Your task to perform on an android device: Show me productivity apps on the Play Store Image 0: 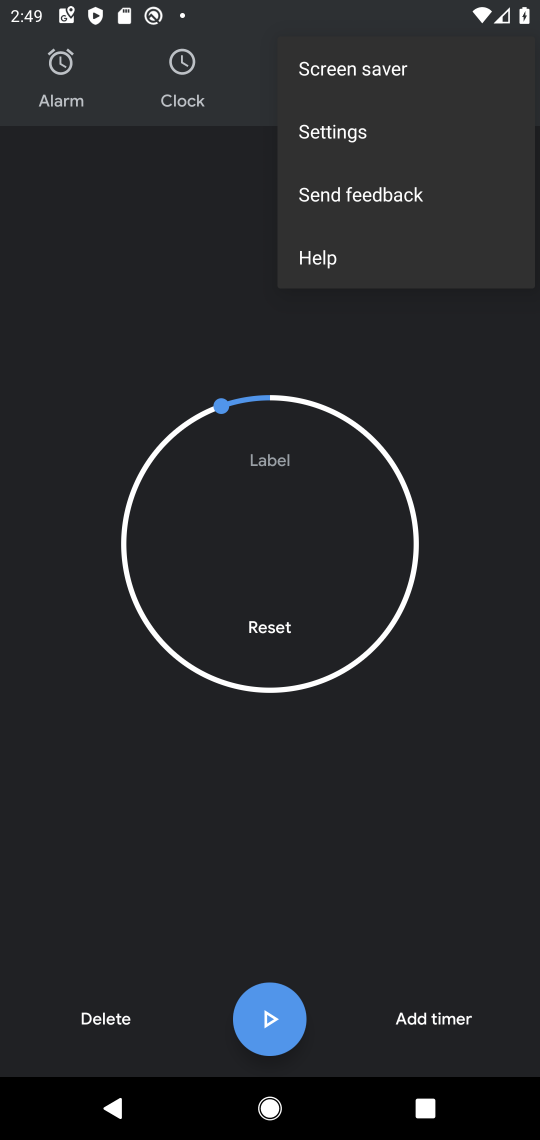
Step 0: press home button
Your task to perform on an android device: Show me productivity apps on the Play Store Image 1: 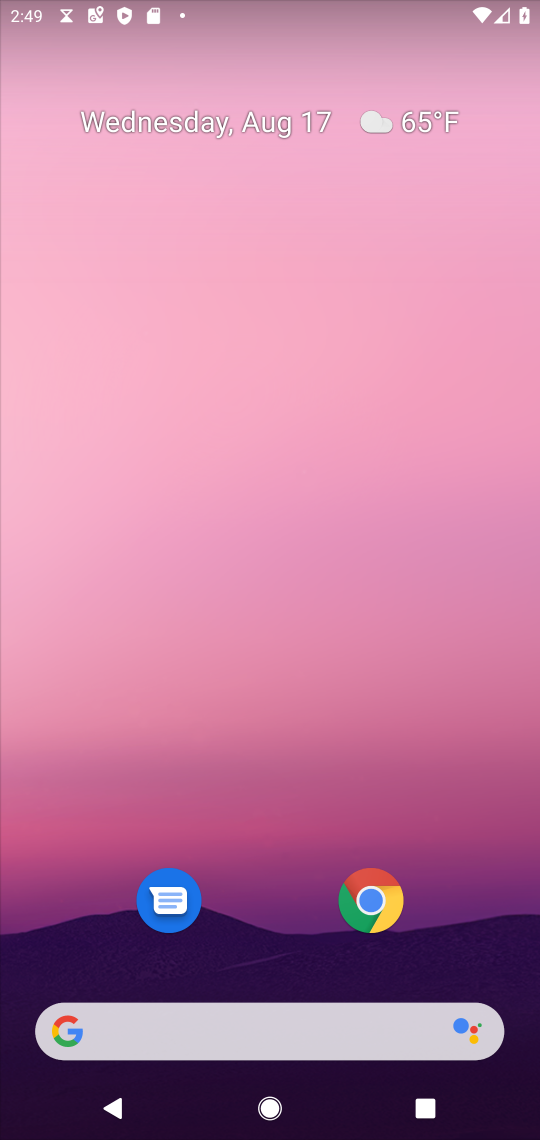
Step 1: drag from (231, 1026) to (356, 231)
Your task to perform on an android device: Show me productivity apps on the Play Store Image 2: 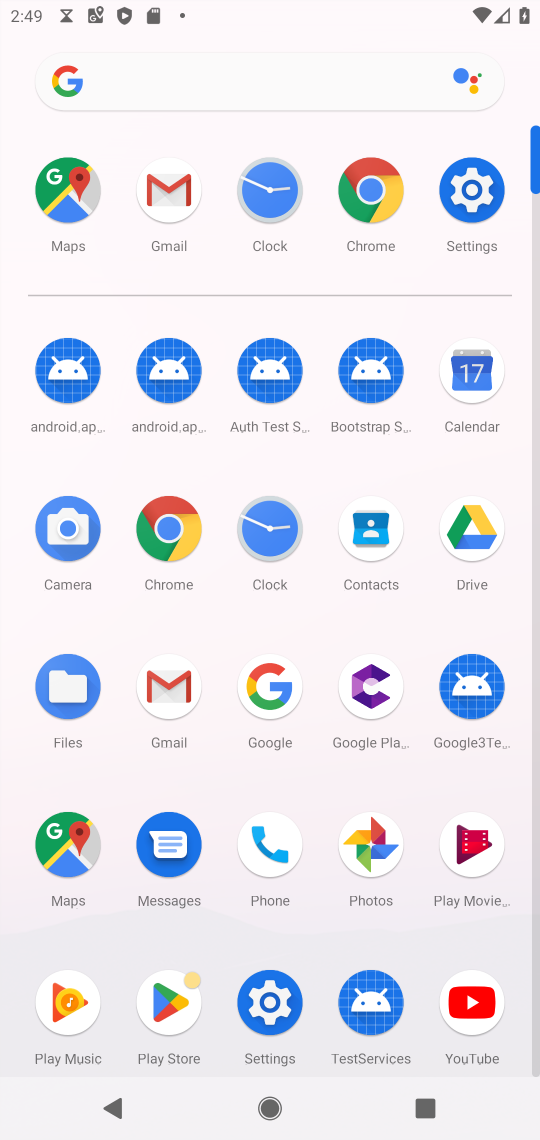
Step 2: click (171, 1064)
Your task to perform on an android device: Show me productivity apps on the Play Store Image 3: 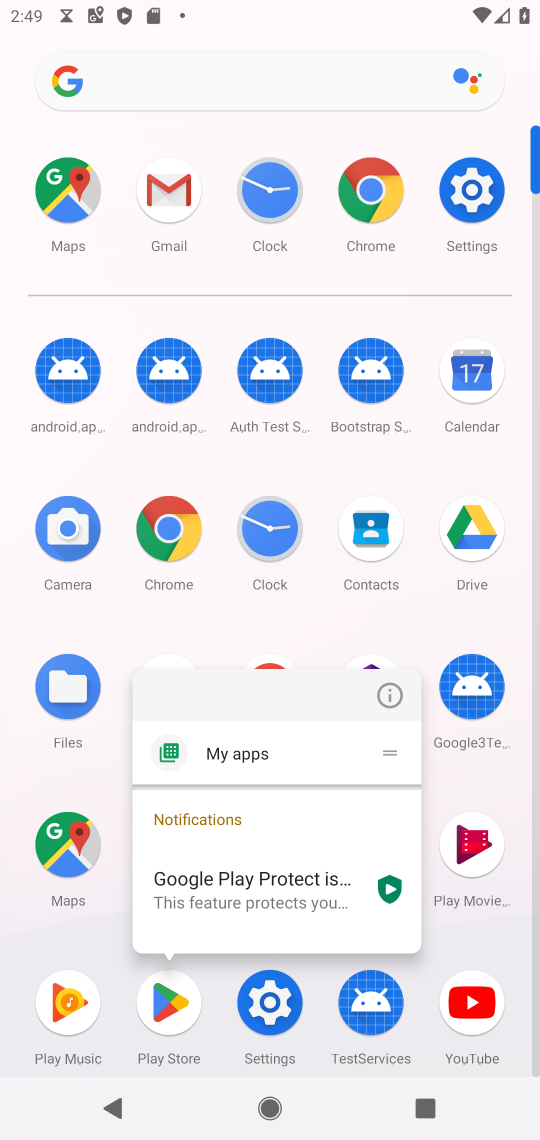
Step 3: click (161, 1005)
Your task to perform on an android device: Show me productivity apps on the Play Store Image 4: 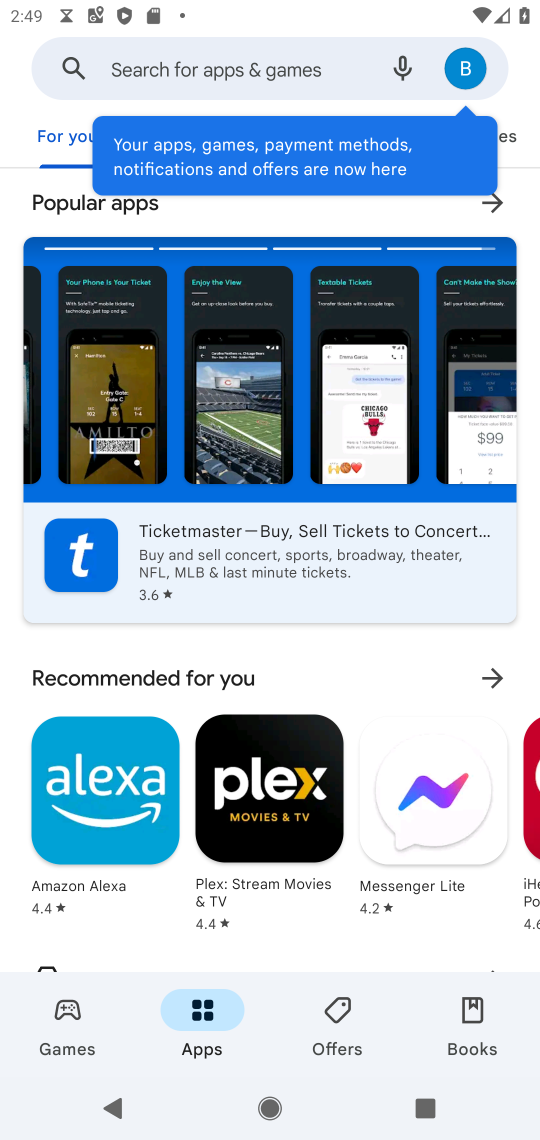
Step 4: drag from (355, 725) to (486, 294)
Your task to perform on an android device: Show me productivity apps on the Play Store Image 5: 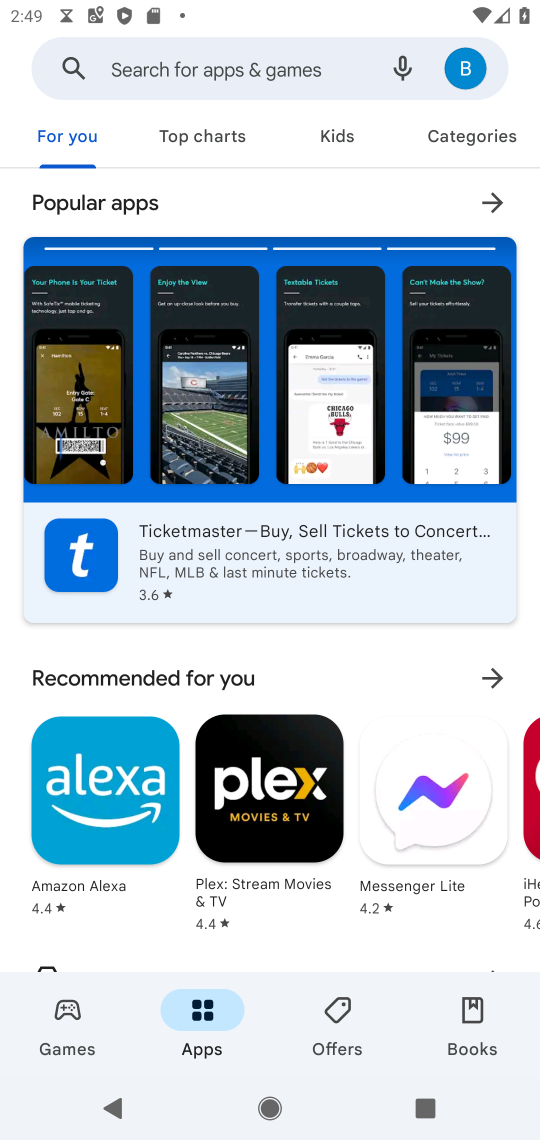
Step 5: click (462, 124)
Your task to perform on an android device: Show me productivity apps on the Play Store Image 6: 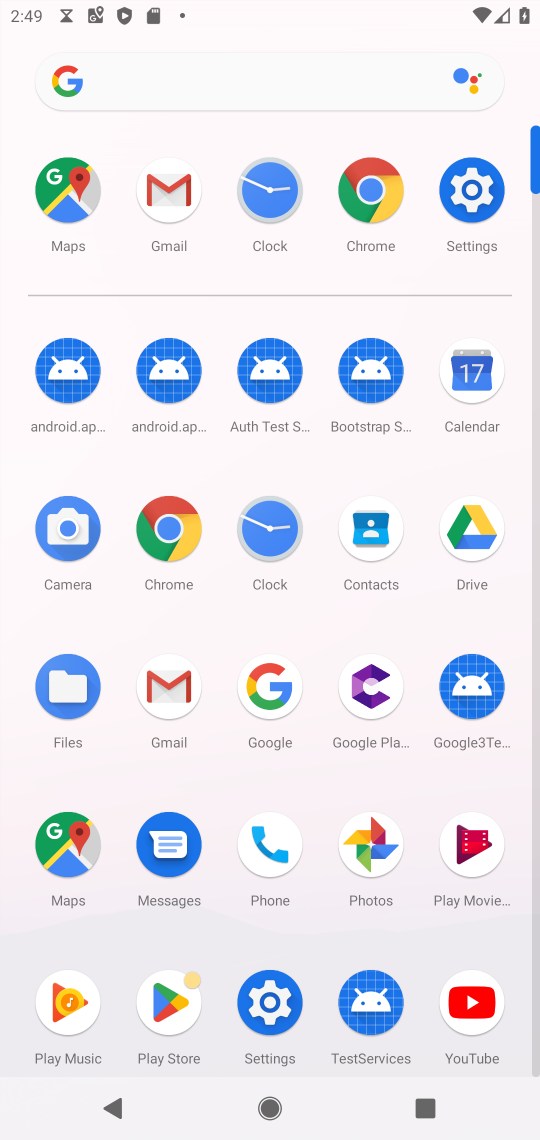
Step 6: click (165, 1014)
Your task to perform on an android device: Show me productivity apps on the Play Store Image 7: 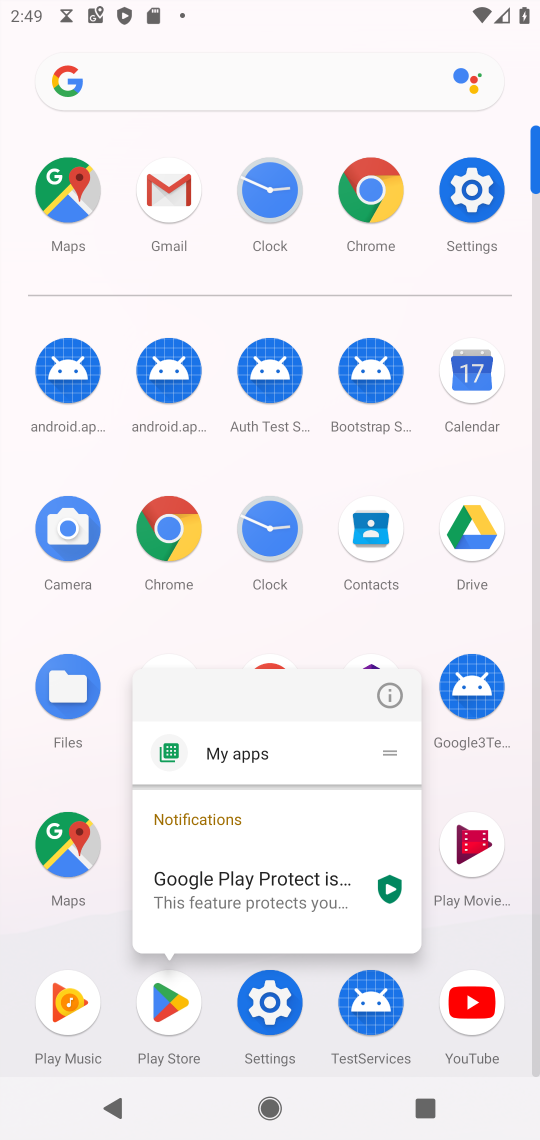
Step 7: click (176, 999)
Your task to perform on an android device: Show me productivity apps on the Play Store Image 8: 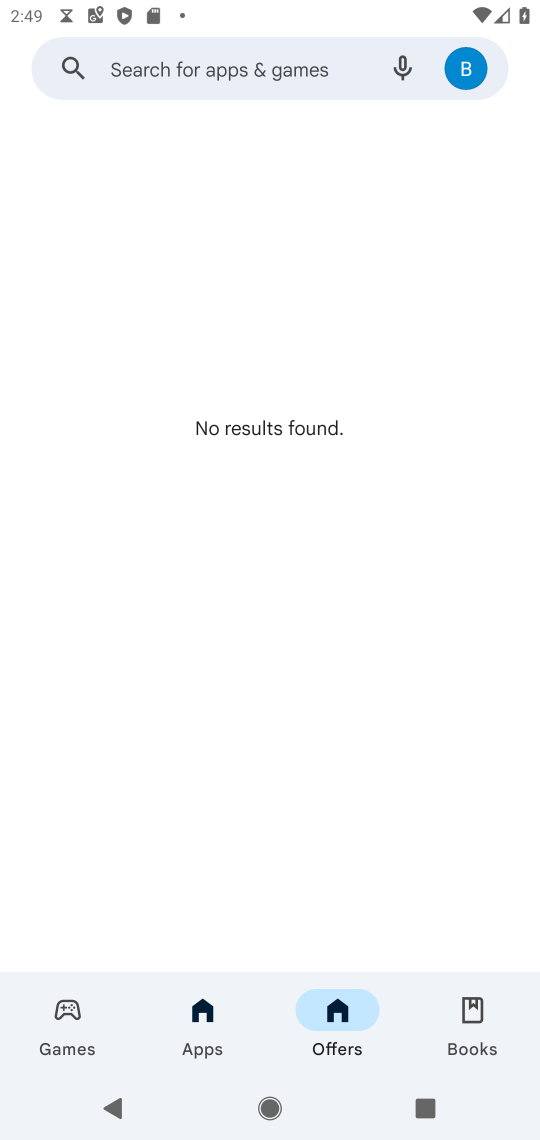
Step 8: click (189, 1019)
Your task to perform on an android device: Show me productivity apps on the Play Store Image 9: 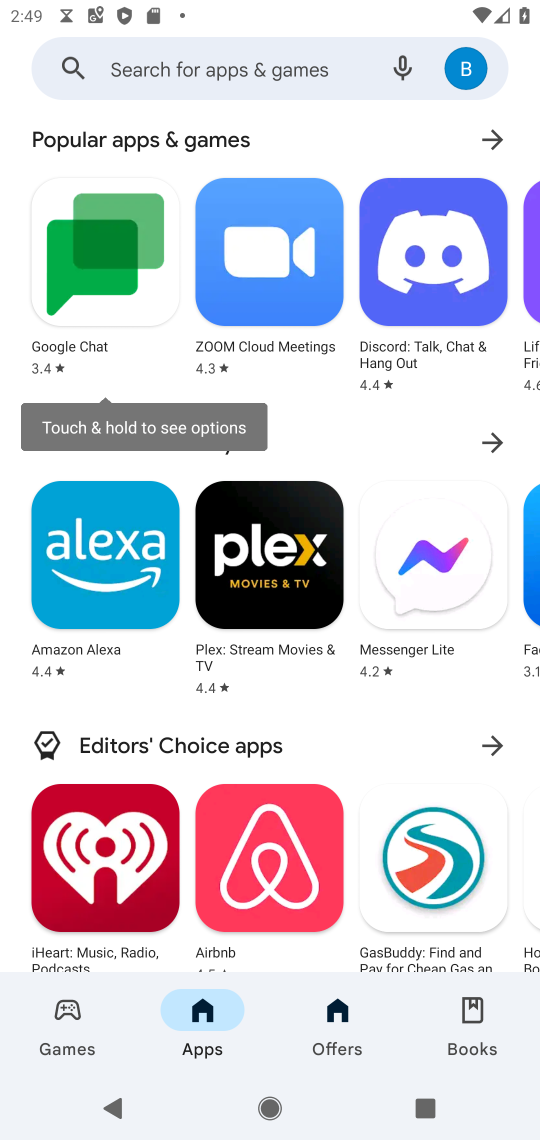
Step 9: task complete